Your task to perform on an android device: turn off notifications settings in the gmail app Image 0: 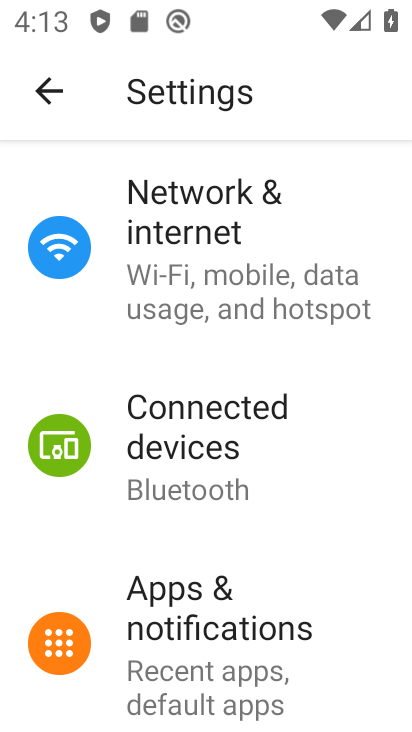
Step 0: press home button
Your task to perform on an android device: turn off notifications settings in the gmail app Image 1: 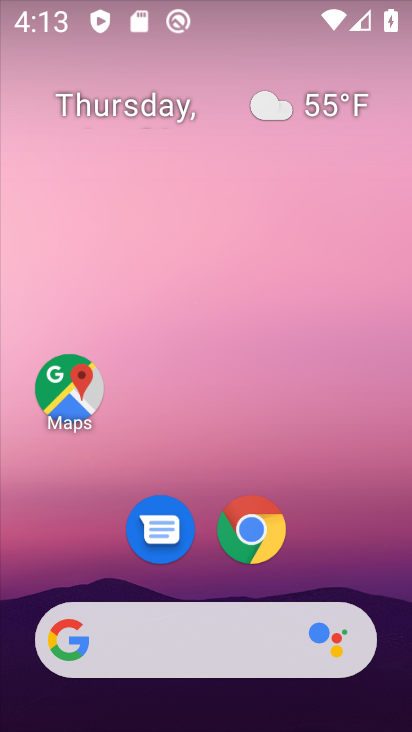
Step 1: drag from (168, 595) to (225, 244)
Your task to perform on an android device: turn off notifications settings in the gmail app Image 2: 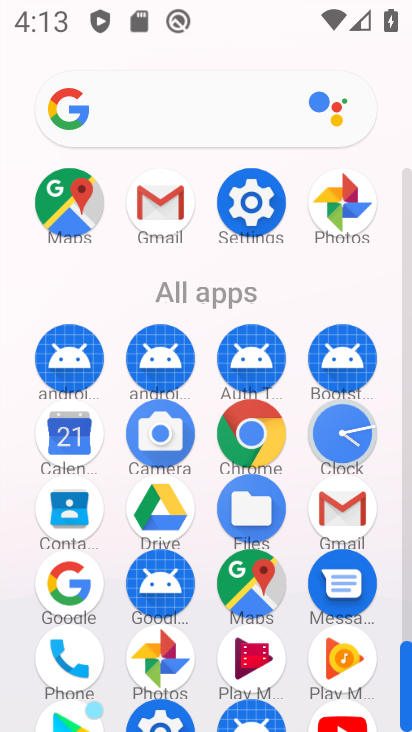
Step 2: click (164, 207)
Your task to perform on an android device: turn off notifications settings in the gmail app Image 3: 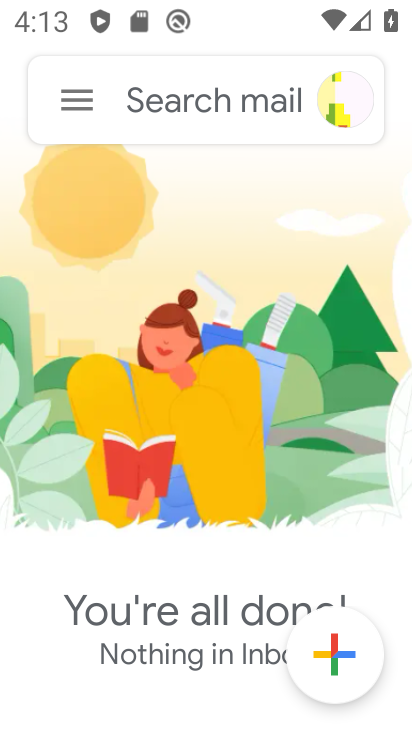
Step 3: click (70, 110)
Your task to perform on an android device: turn off notifications settings in the gmail app Image 4: 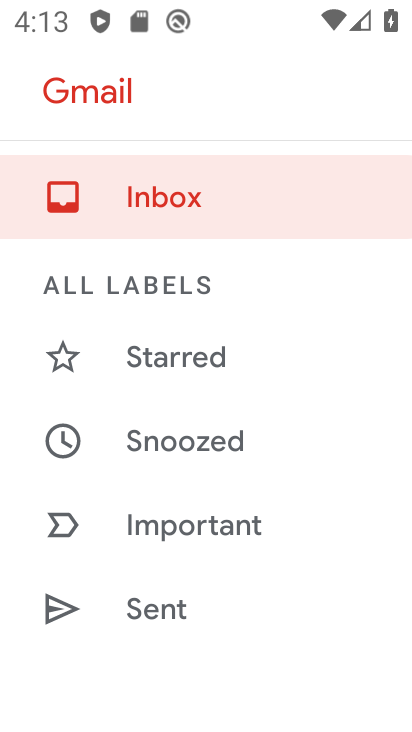
Step 4: drag from (190, 542) to (248, 231)
Your task to perform on an android device: turn off notifications settings in the gmail app Image 5: 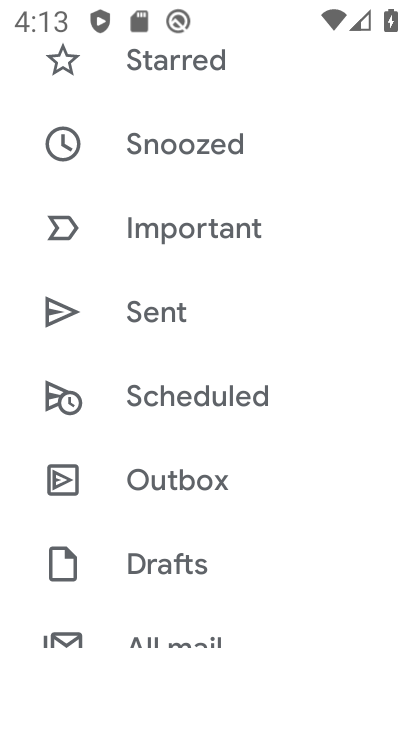
Step 5: drag from (165, 629) to (232, 242)
Your task to perform on an android device: turn off notifications settings in the gmail app Image 6: 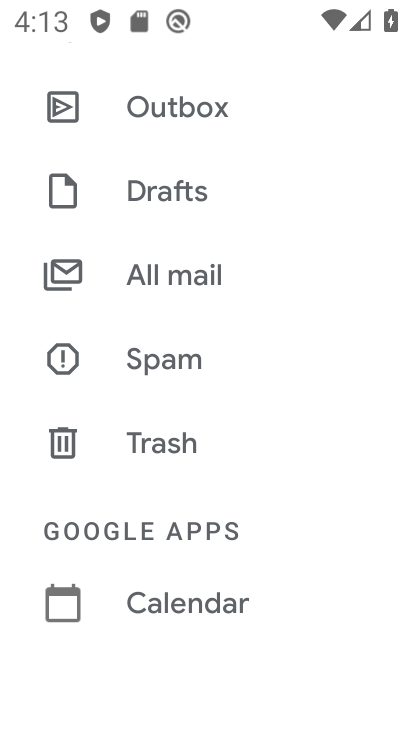
Step 6: drag from (220, 547) to (257, 324)
Your task to perform on an android device: turn off notifications settings in the gmail app Image 7: 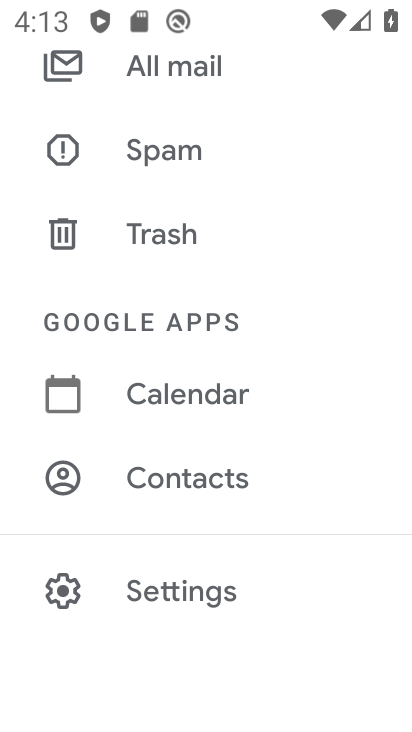
Step 7: click (165, 595)
Your task to perform on an android device: turn off notifications settings in the gmail app Image 8: 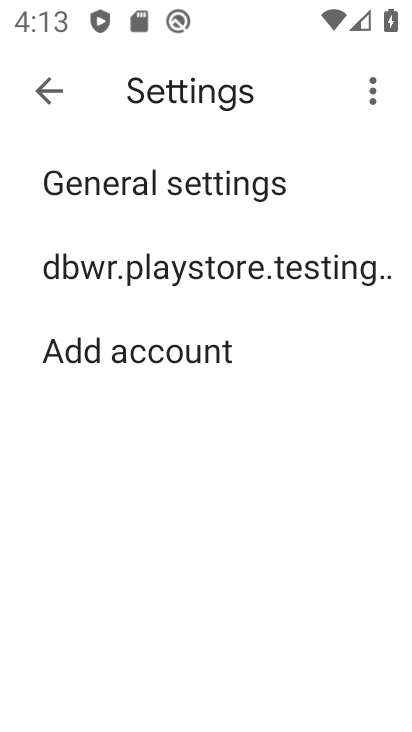
Step 8: click (129, 184)
Your task to perform on an android device: turn off notifications settings in the gmail app Image 9: 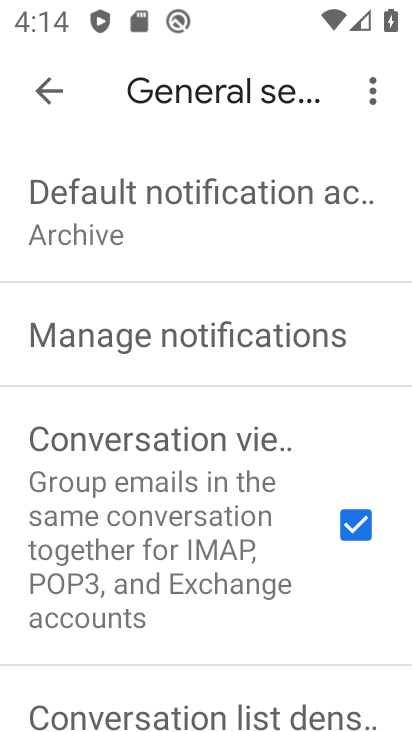
Step 9: click (160, 333)
Your task to perform on an android device: turn off notifications settings in the gmail app Image 10: 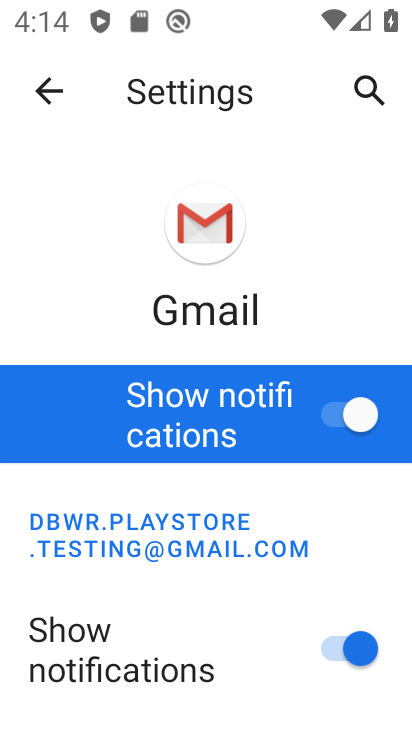
Step 10: click (335, 417)
Your task to perform on an android device: turn off notifications settings in the gmail app Image 11: 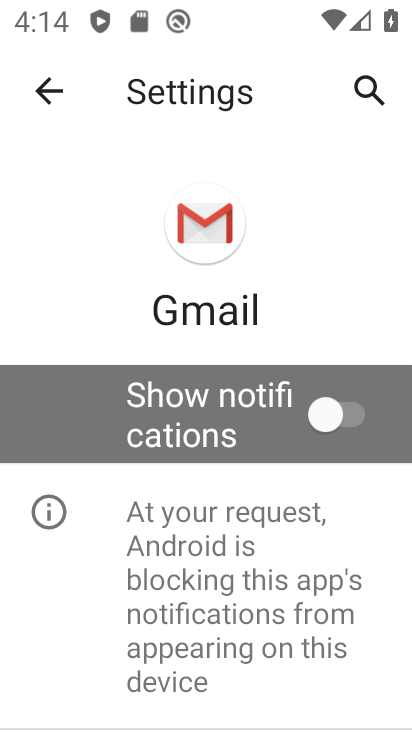
Step 11: task complete